Your task to perform on an android device: Open calendar and show me the fourth week of next month Image 0: 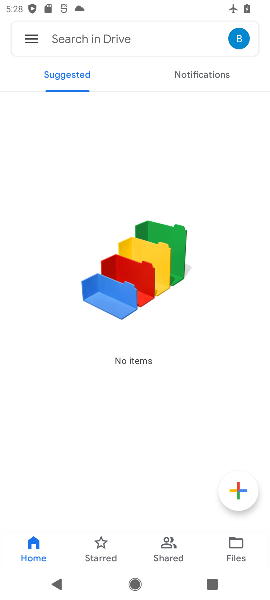
Step 0: press home button
Your task to perform on an android device: Open calendar and show me the fourth week of next month Image 1: 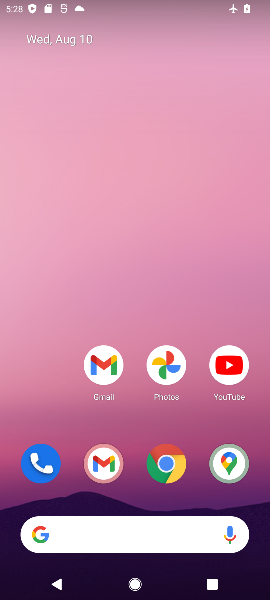
Step 1: drag from (139, 490) to (70, 78)
Your task to perform on an android device: Open calendar and show me the fourth week of next month Image 2: 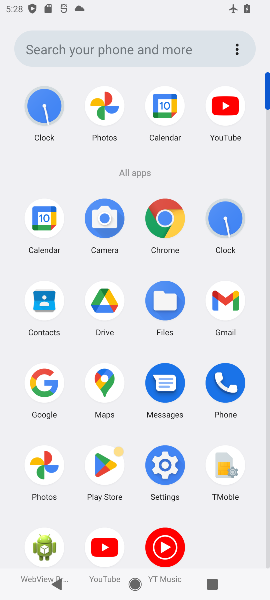
Step 2: click (46, 219)
Your task to perform on an android device: Open calendar and show me the fourth week of next month Image 3: 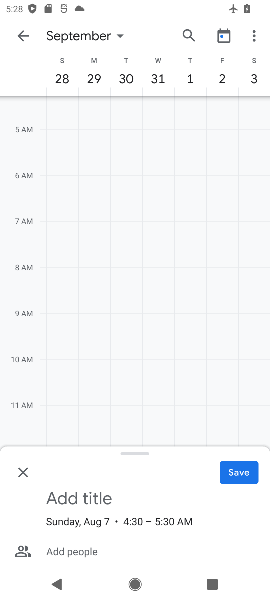
Step 3: click (107, 38)
Your task to perform on an android device: Open calendar and show me the fourth week of next month Image 4: 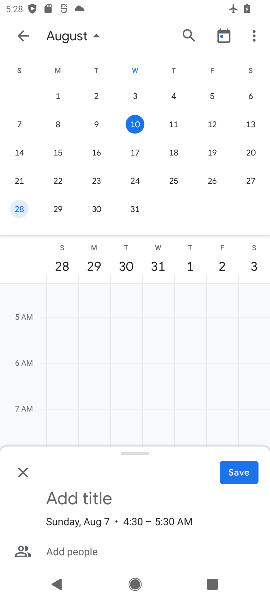
Step 4: drag from (250, 152) to (4, 147)
Your task to perform on an android device: Open calendar and show me the fourth week of next month Image 5: 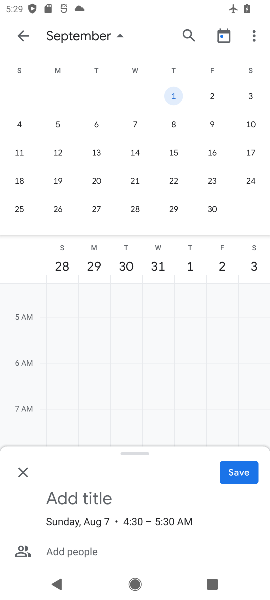
Step 5: click (169, 176)
Your task to perform on an android device: Open calendar and show me the fourth week of next month Image 6: 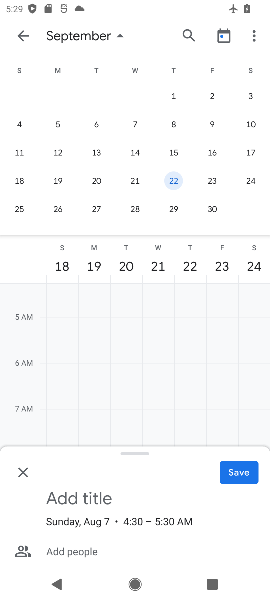
Step 6: click (19, 473)
Your task to perform on an android device: Open calendar and show me the fourth week of next month Image 7: 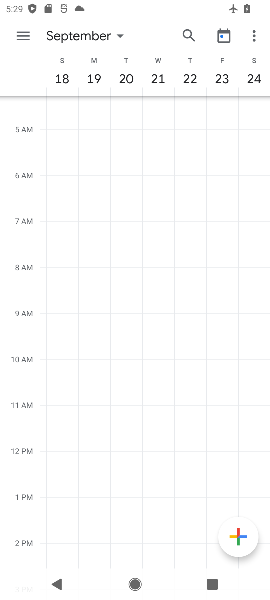
Step 7: task complete